Your task to perform on an android device: toggle improve location accuracy Image 0: 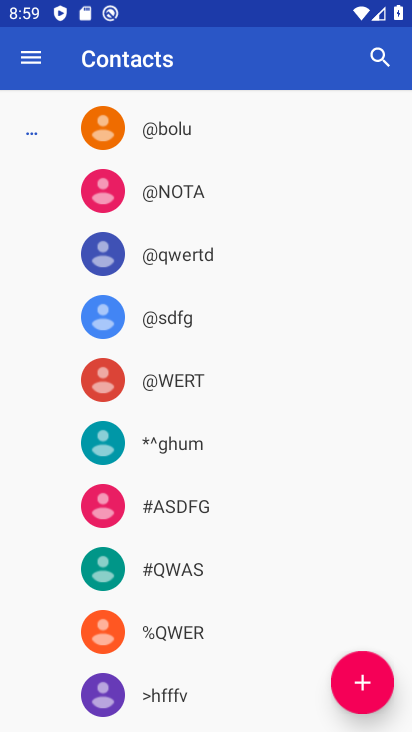
Step 0: press home button
Your task to perform on an android device: toggle improve location accuracy Image 1: 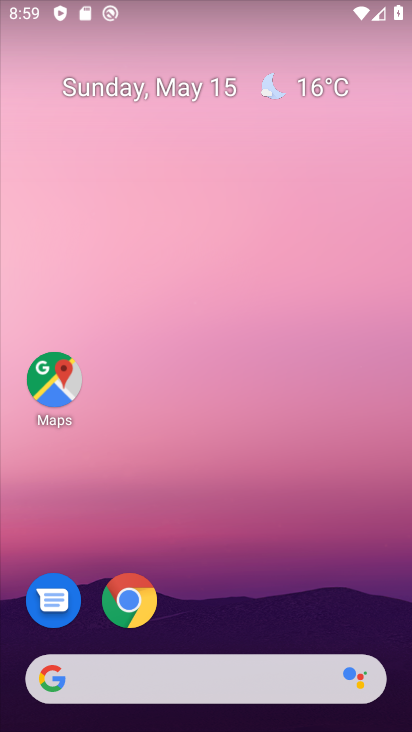
Step 1: drag from (290, 591) to (273, 190)
Your task to perform on an android device: toggle improve location accuracy Image 2: 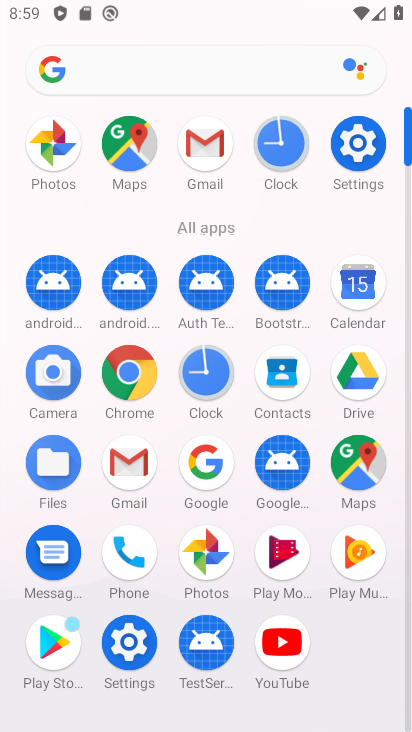
Step 2: click (127, 669)
Your task to perform on an android device: toggle improve location accuracy Image 3: 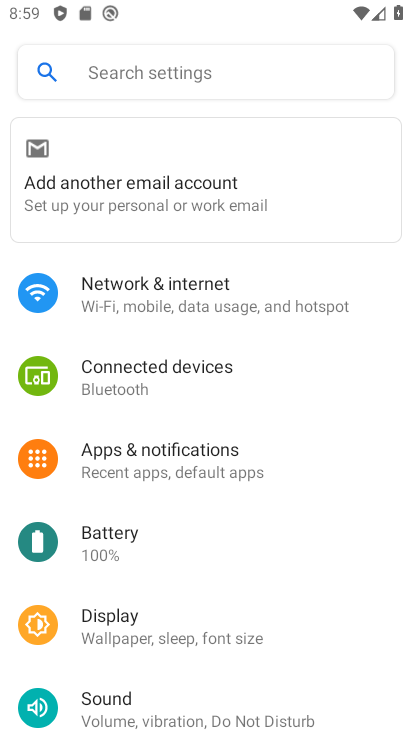
Step 3: drag from (176, 668) to (261, 280)
Your task to perform on an android device: toggle improve location accuracy Image 4: 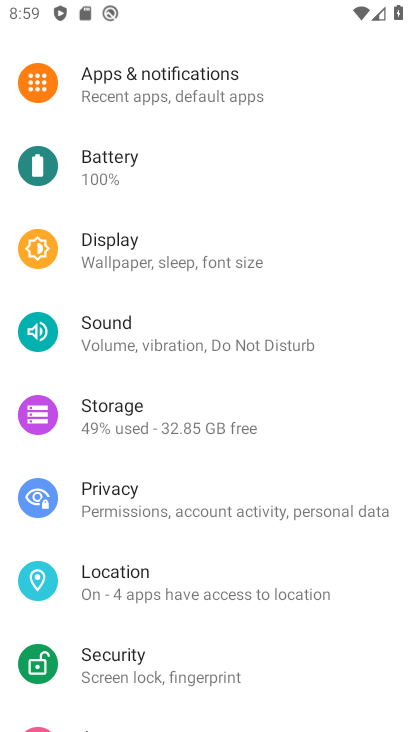
Step 4: click (238, 582)
Your task to perform on an android device: toggle improve location accuracy Image 5: 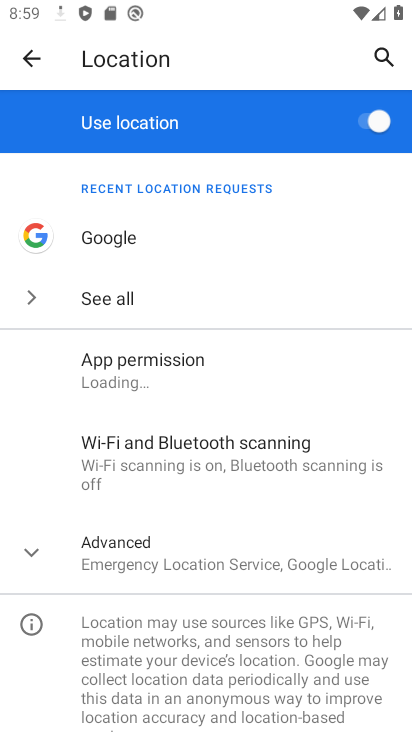
Step 5: click (29, 555)
Your task to perform on an android device: toggle improve location accuracy Image 6: 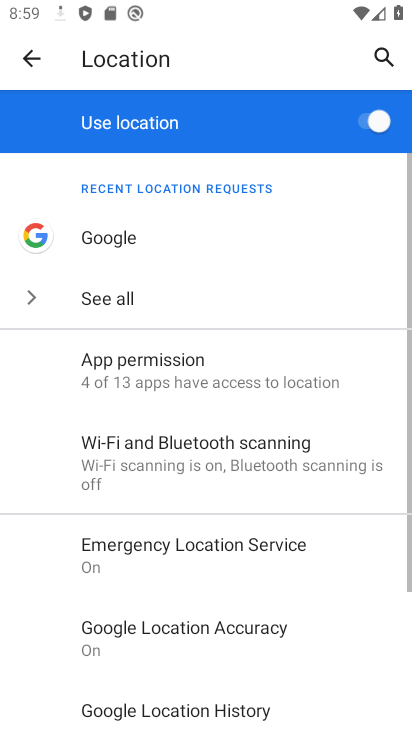
Step 6: click (185, 637)
Your task to perform on an android device: toggle improve location accuracy Image 7: 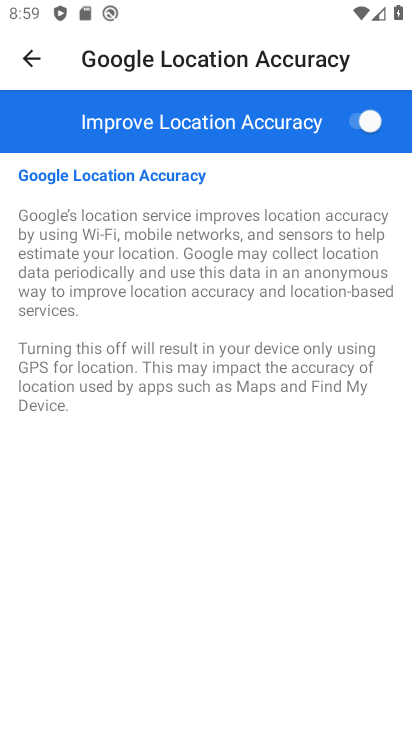
Step 7: click (368, 129)
Your task to perform on an android device: toggle improve location accuracy Image 8: 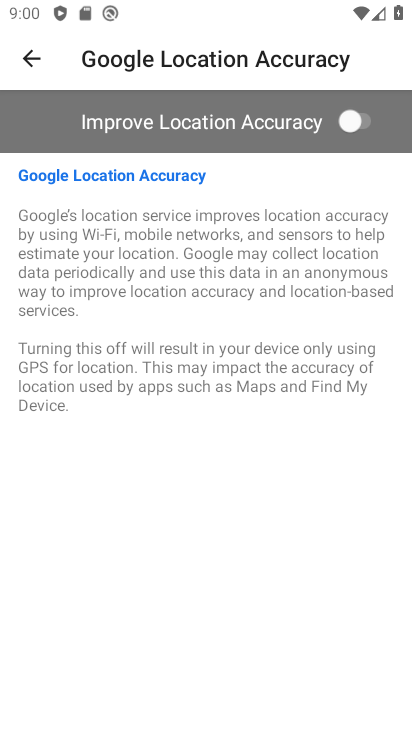
Step 8: task complete